Your task to perform on an android device: choose inbox layout in the gmail app Image 0: 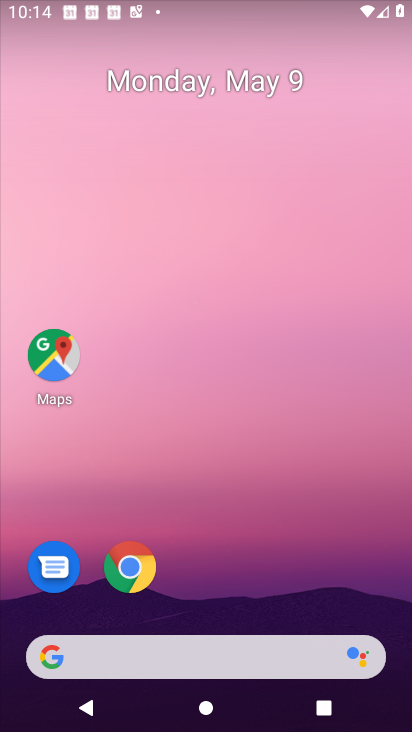
Step 0: drag from (174, 648) to (188, 102)
Your task to perform on an android device: choose inbox layout in the gmail app Image 1: 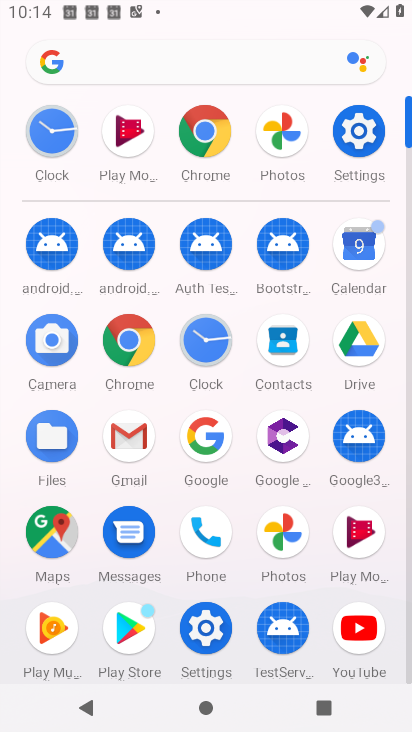
Step 1: click (132, 446)
Your task to perform on an android device: choose inbox layout in the gmail app Image 2: 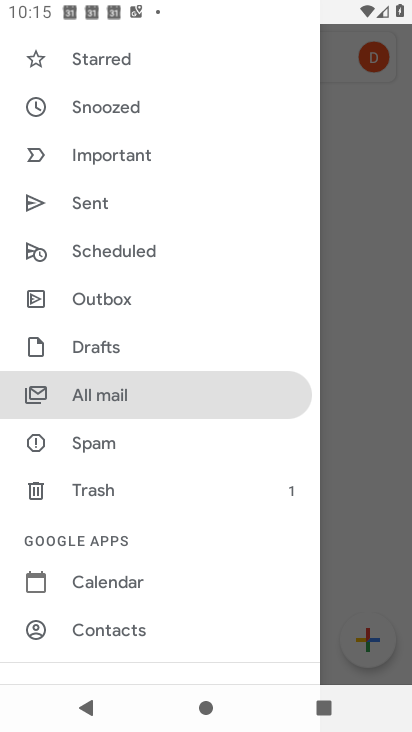
Step 2: drag from (103, 604) to (58, 220)
Your task to perform on an android device: choose inbox layout in the gmail app Image 3: 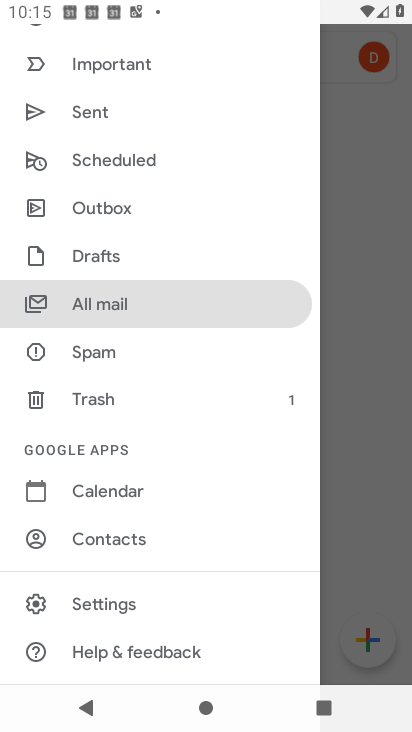
Step 3: click (87, 600)
Your task to perform on an android device: choose inbox layout in the gmail app Image 4: 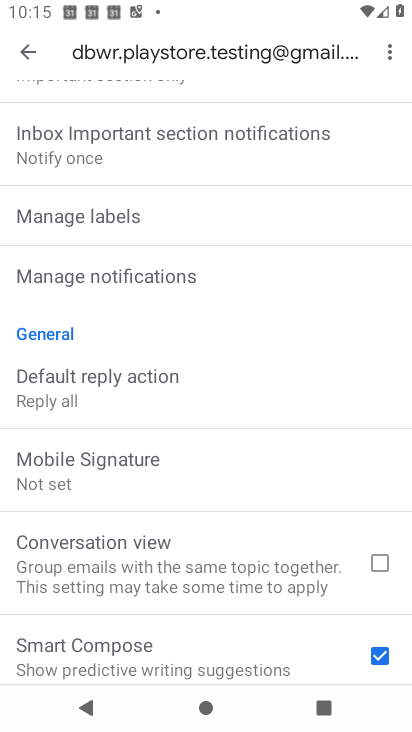
Step 4: drag from (147, 159) to (143, 562)
Your task to perform on an android device: choose inbox layout in the gmail app Image 5: 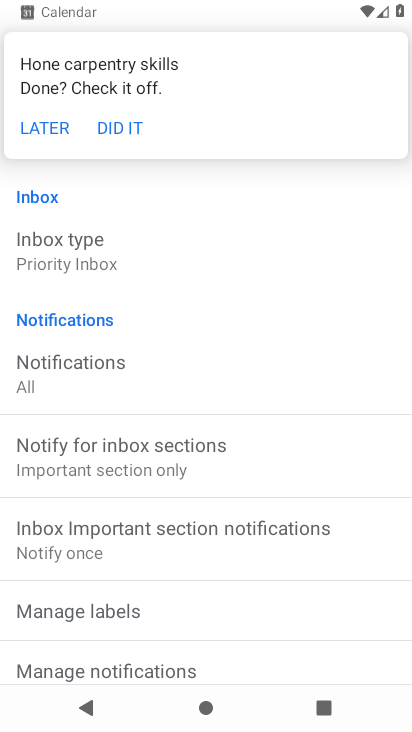
Step 5: click (102, 261)
Your task to perform on an android device: choose inbox layout in the gmail app Image 6: 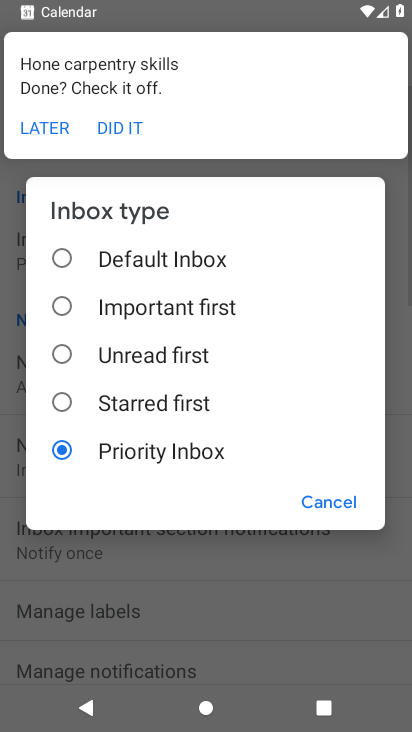
Step 6: click (129, 263)
Your task to perform on an android device: choose inbox layout in the gmail app Image 7: 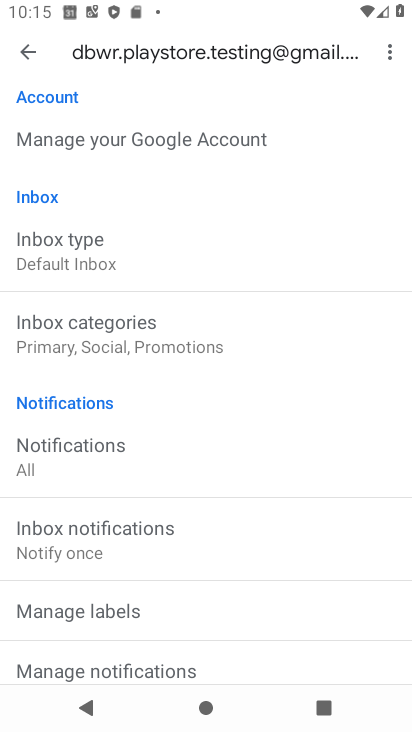
Step 7: task complete